Your task to perform on an android device: Open Reddit.com Image 0: 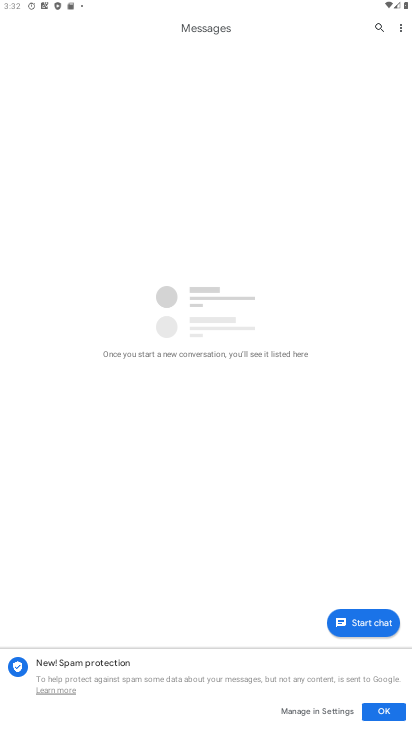
Step 0: press home button
Your task to perform on an android device: Open Reddit.com Image 1: 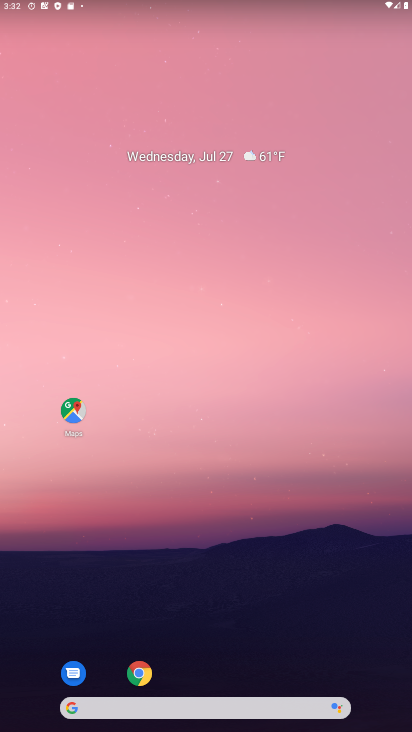
Step 1: click (145, 702)
Your task to perform on an android device: Open Reddit.com Image 2: 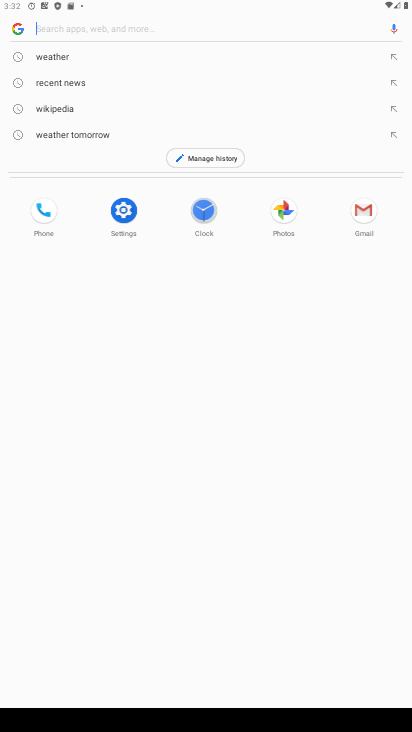
Step 2: click (116, 21)
Your task to perform on an android device: Open Reddit.com Image 3: 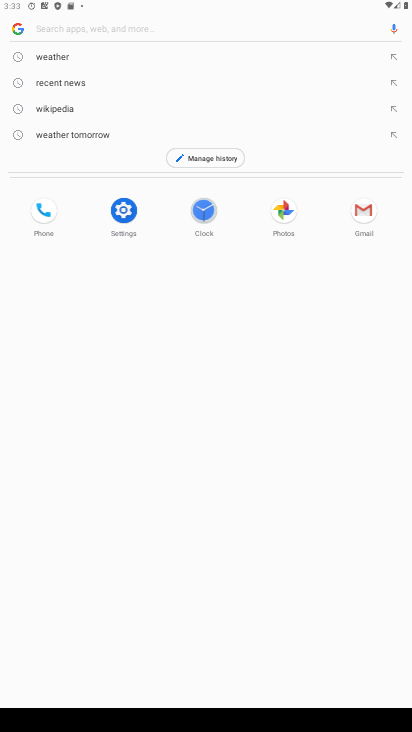
Step 3: type " Reddit.com"
Your task to perform on an android device: Open Reddit.com Image 4: 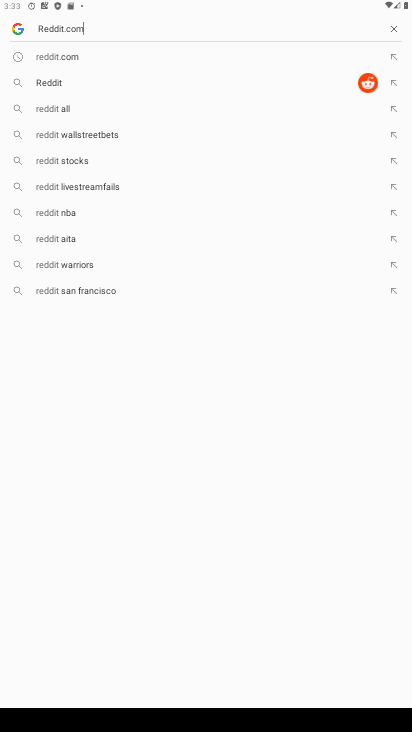
Step 4: type ""
Your task to perform on an android device: Open Reddit.com Image 5: 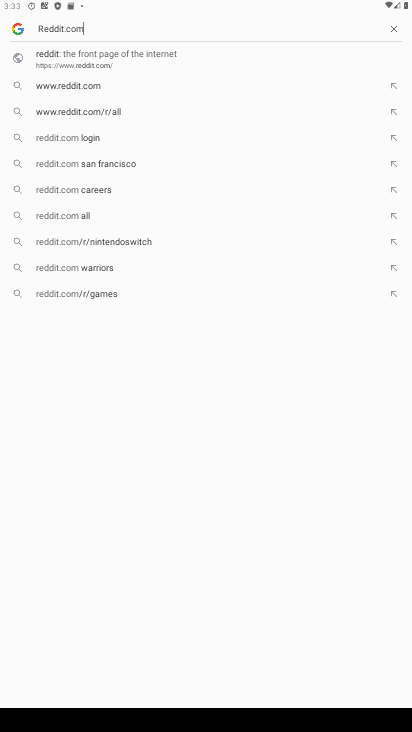
Step 5: task complete